Your task to perform on an android device: Open the map Image 0: 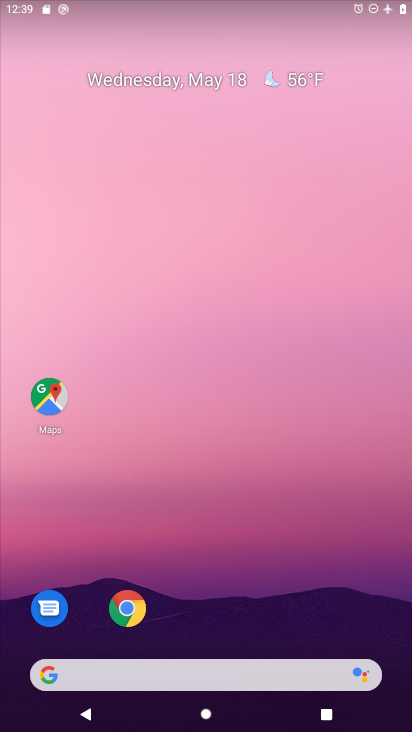
Step 0: drag from (282, 694) to (347, 232)
Your task to perform on an android device: Open the map Image 1: 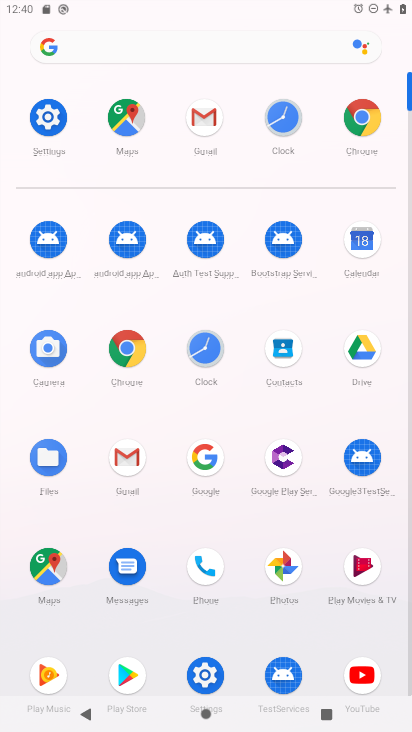
Step 1: click (53, 563)
Your task to perform on an android device: Open the map Image 2: 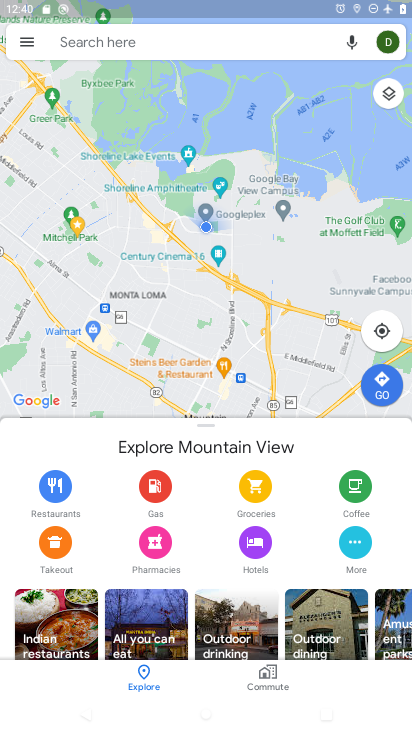
Step 2: click (120, 373)
Your task to perform on an android device: Open the map Image 3: 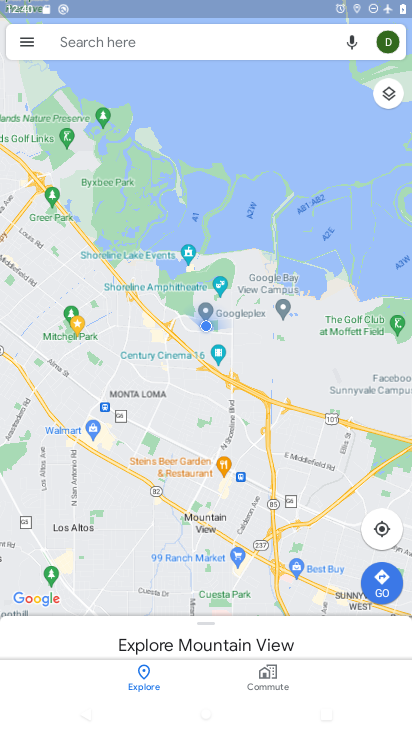
Step 3: task complete